Your task to perform on an android device: remove spam from my inbox in the gmail app Image 0: 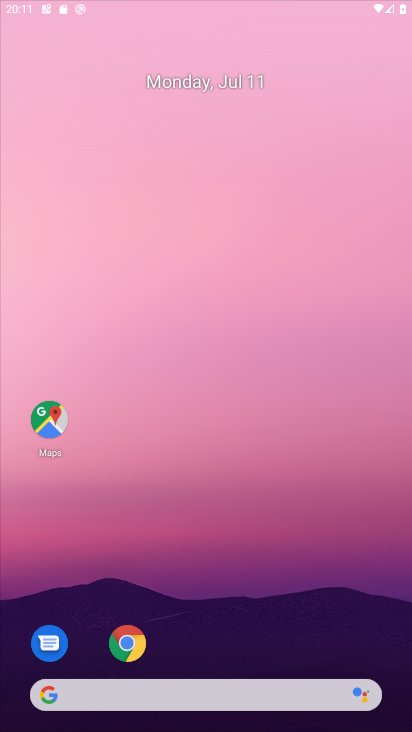
Step 0: click (217, 204)
Your task to perform on an android device: remove spam from my inbox in the gmail app Image 1: 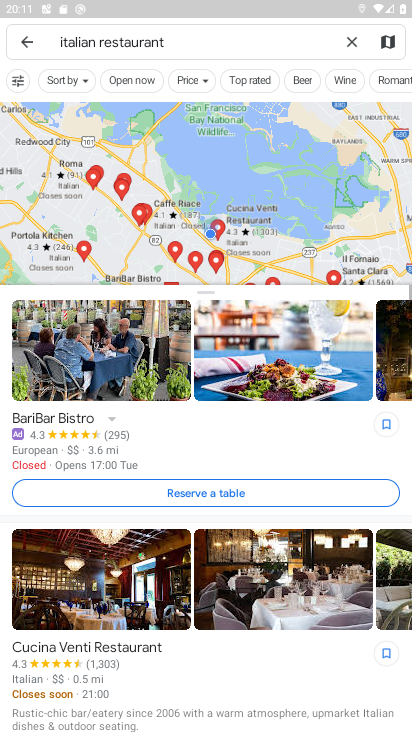
Step 1: press home button
Your task to perform on an android device: remove spam from my inbox in the gmail app Image 2: 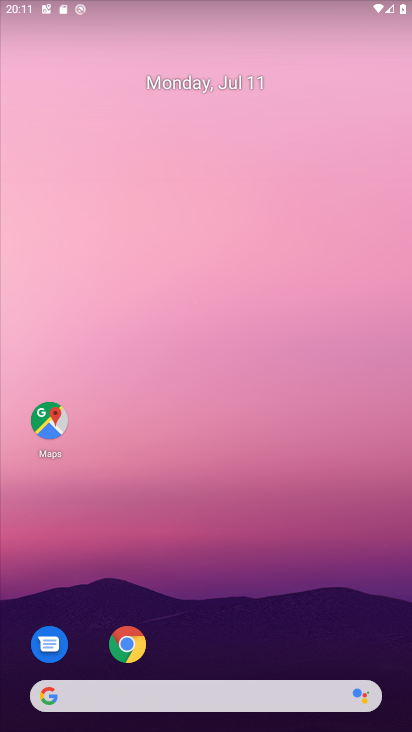
Step 2: drag from (176, 638) to (108, 6)
Your task to perform on an android device: remove spam from my inbox in the gmail app Image 3: 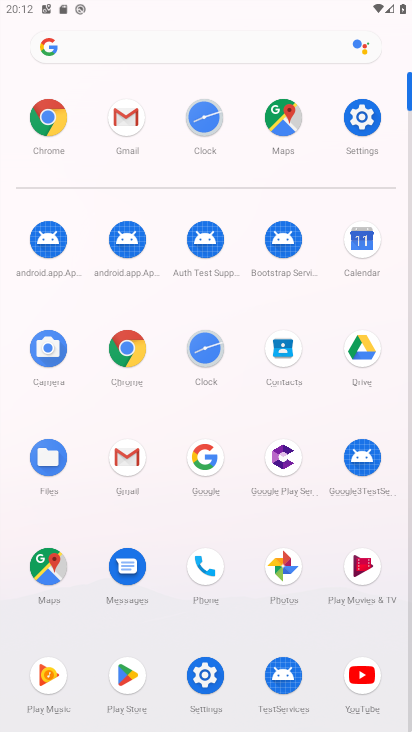
Step 3: click (119, 113)
Your task to perform on an android device: remove spam from my inbox in the gmail app Image 4: 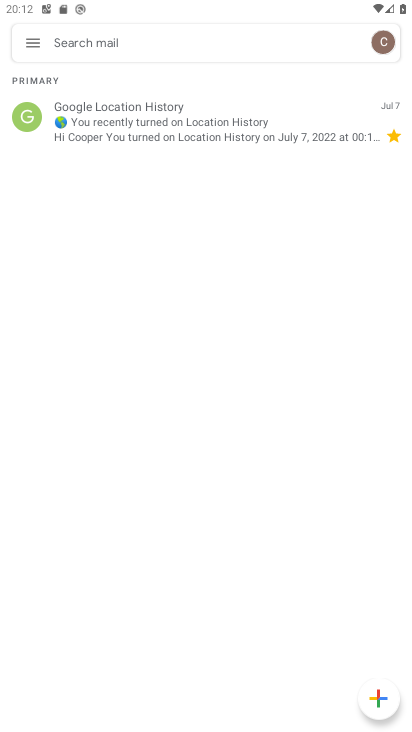
Step 4: click (36, 41)
Your task to perform on an android device: remove spam from my inbox in the gmail app Image 5: 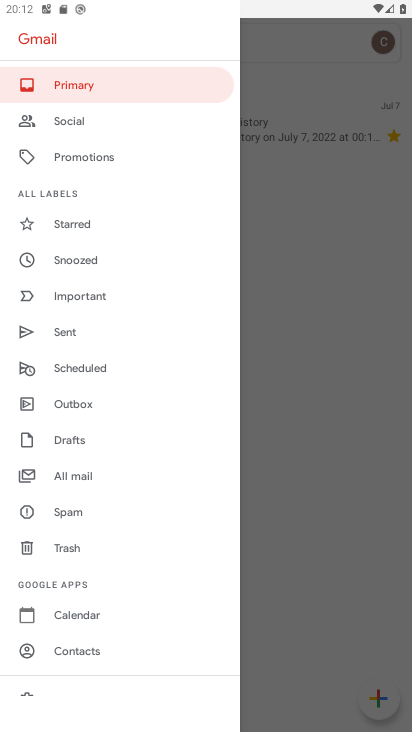
Step 5: click (97, 511)
Your task to perform on an android device: remove spam from my inbox in the gmail app Image 6: 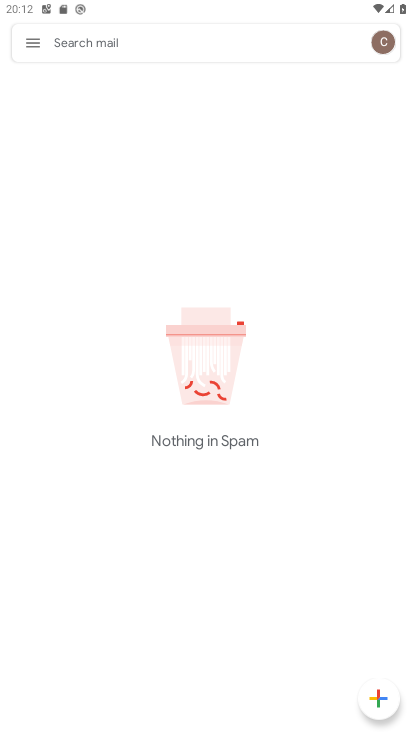
Step 6: task complete